Your task to perform on an android device: Play the last video I watched on Youtube Image 0: 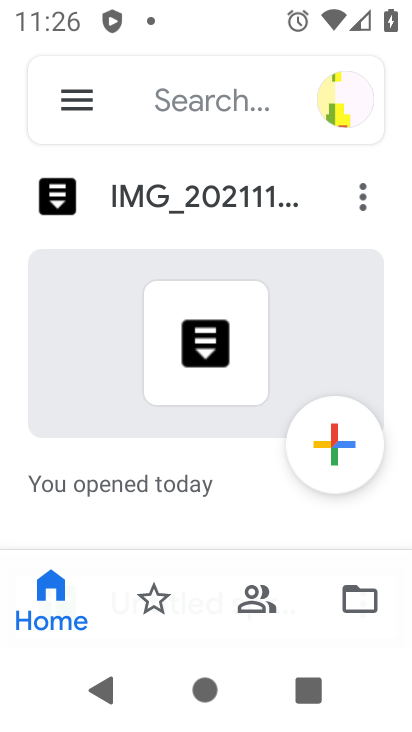
Step 0: press home button
Your task to perform on an android device: Play the last video I watched on Youtube Image 1: 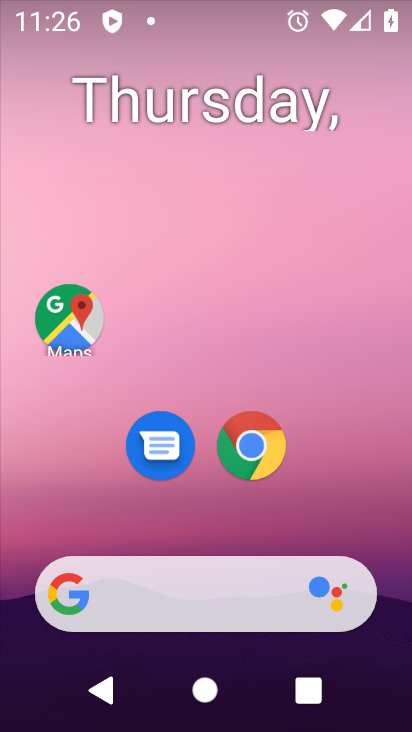
Step 1: drag from (354, 477) to (323, 43)
Your task to perform on an android device: Play the last video I watched on Youtube Image 2: 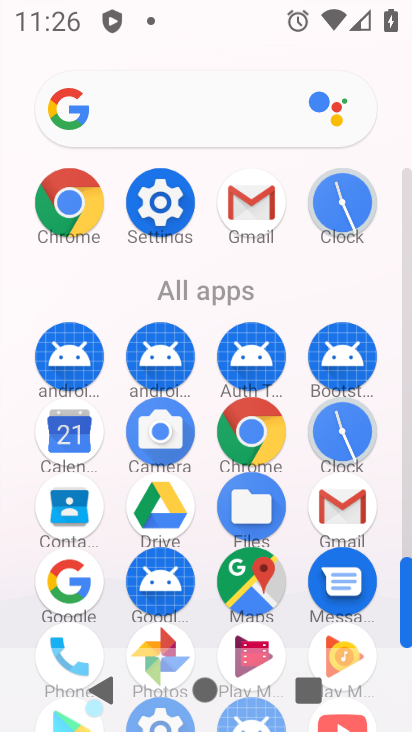
Step 2: drag from (384, 505) to (391, 207)
Your task to perform on an android device: Play the last video I watched on Youtube Image 3: 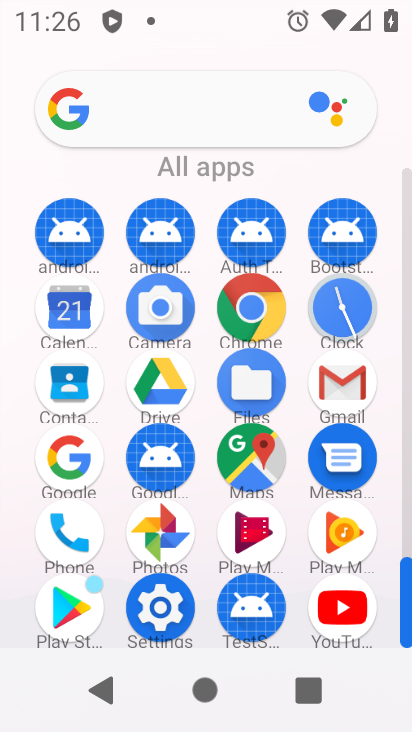
Step 3: click (348, 603)
Your task to perform on an android device: Play the last video I watched on Youtube Image 4: 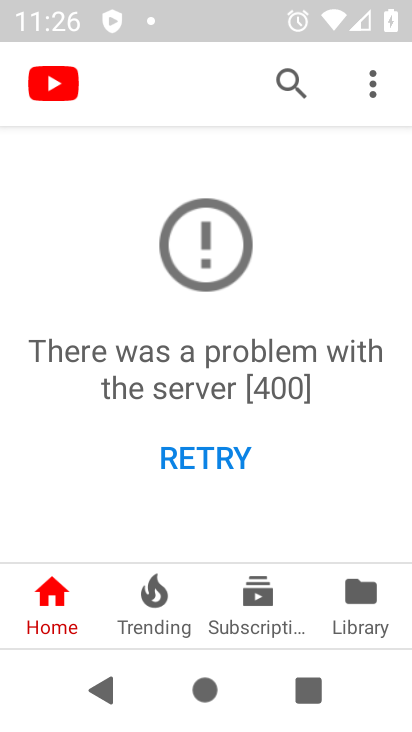
Step 4: click (339, 608)
Your task to perform on an android device: Play the last video I watched on Youtube Image 5: 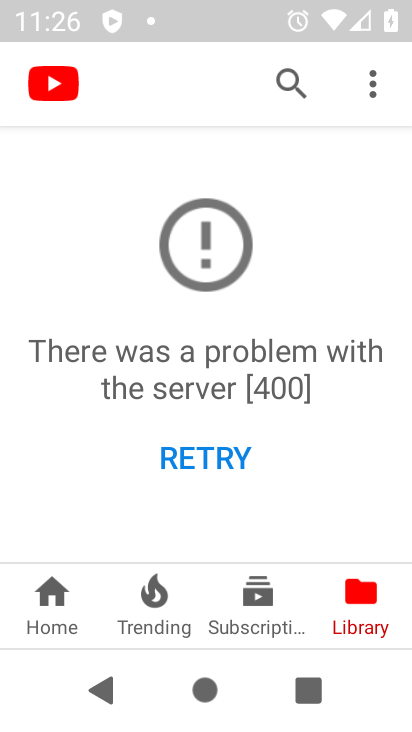
Step 5: click (332, 599)
Your task to perform on an android device: Play the last video I watched on Youtube Image 6: 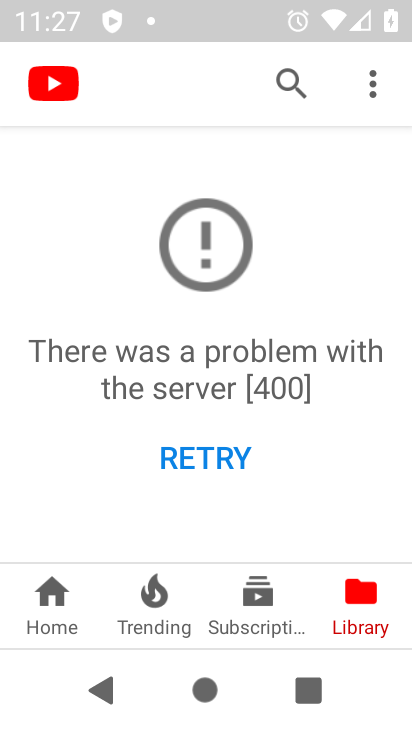
Step 6: click (332, 599)
Your task to perform on an android device: Play the last video I watched on Youtube Image 7: 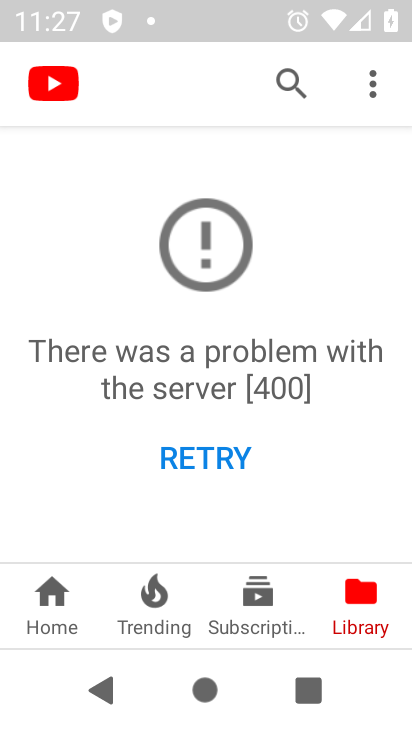
Step 7: click (332, 599)
Your task to perform on an android device: Play the last video I watched on Youtube Image 8: 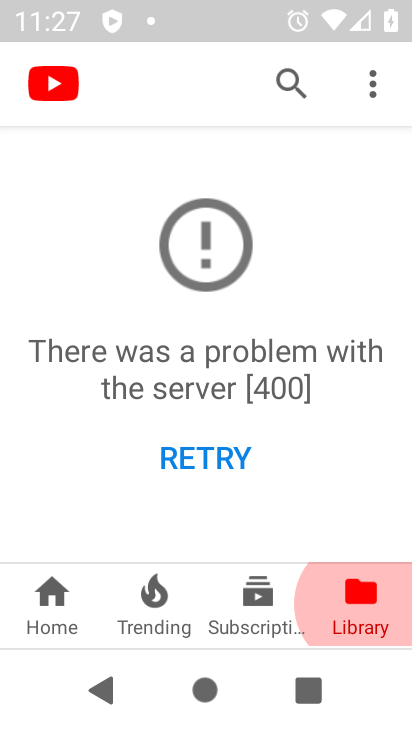
Step 8: click (332, 599)
Your task to perform on an android device: Play the last video I watched on Youtube Image 9: 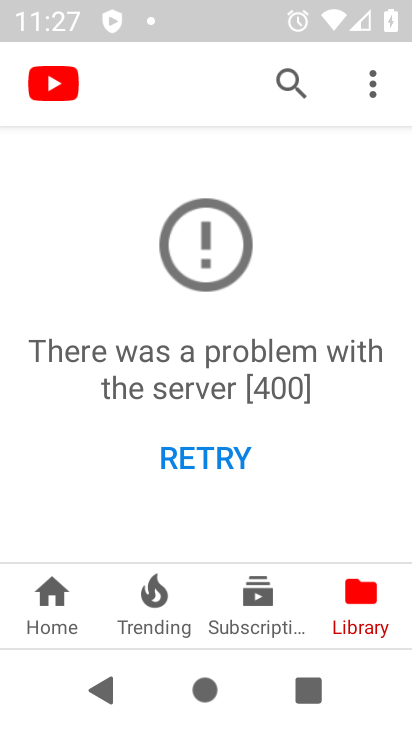
Step 9: task complete